Your task to perform on an android device: check out phone information Image 0: 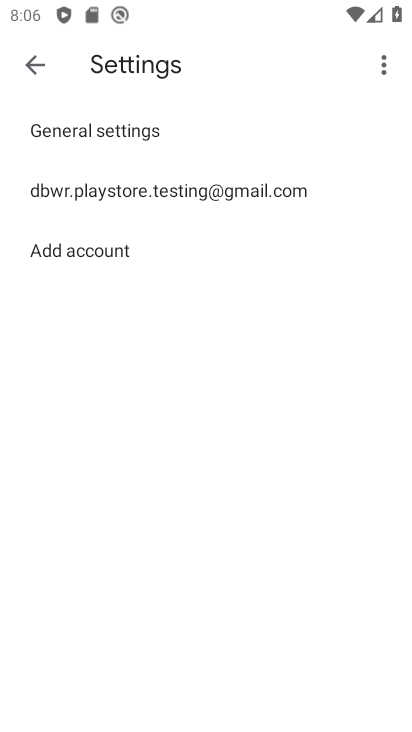
Step 0: drag from (246, 18) to (187, 541)
Your task to perform on an android device: check out phone information Image 1: 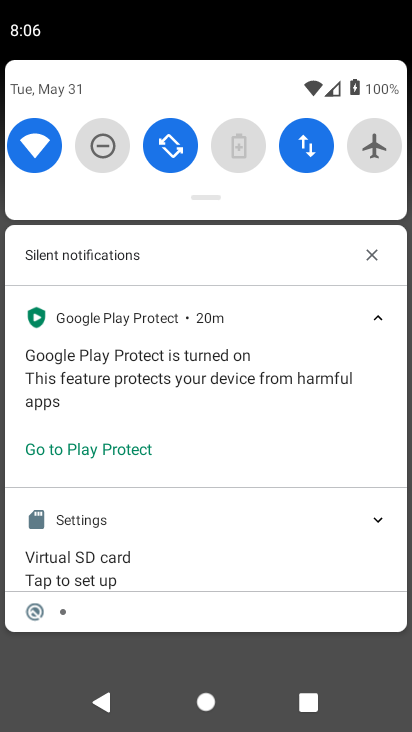
Step 1: click (305, 157)
Your task to perform on an android device: check out phone information Image 2: 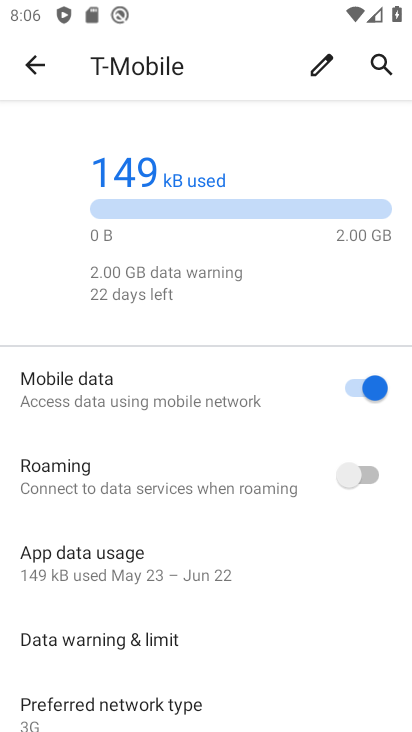
Step 2: task complete